Your task to perform on an android device: Empty the shopping cart on ebay. Search for "jbl flip 4" on ebay, select the first entry, add it to the cart, then select checkout. Image 0: 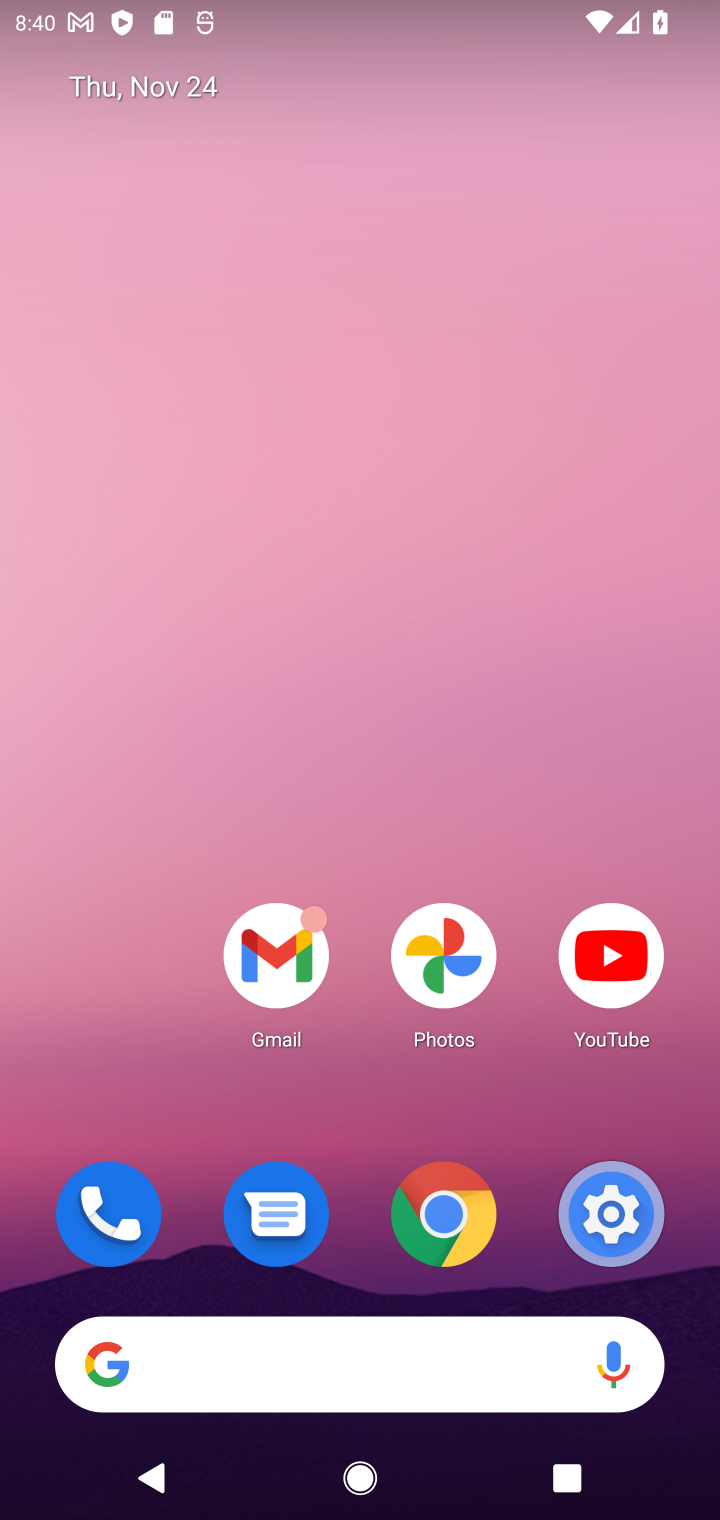
Step 0: click (299, 1340)
Your task to perform on an android device: Empty the shopping cart on ebay. Search for "jbl flip 4" on ebay, select the first entry, add it to the cart, then select checkout. Image 1: 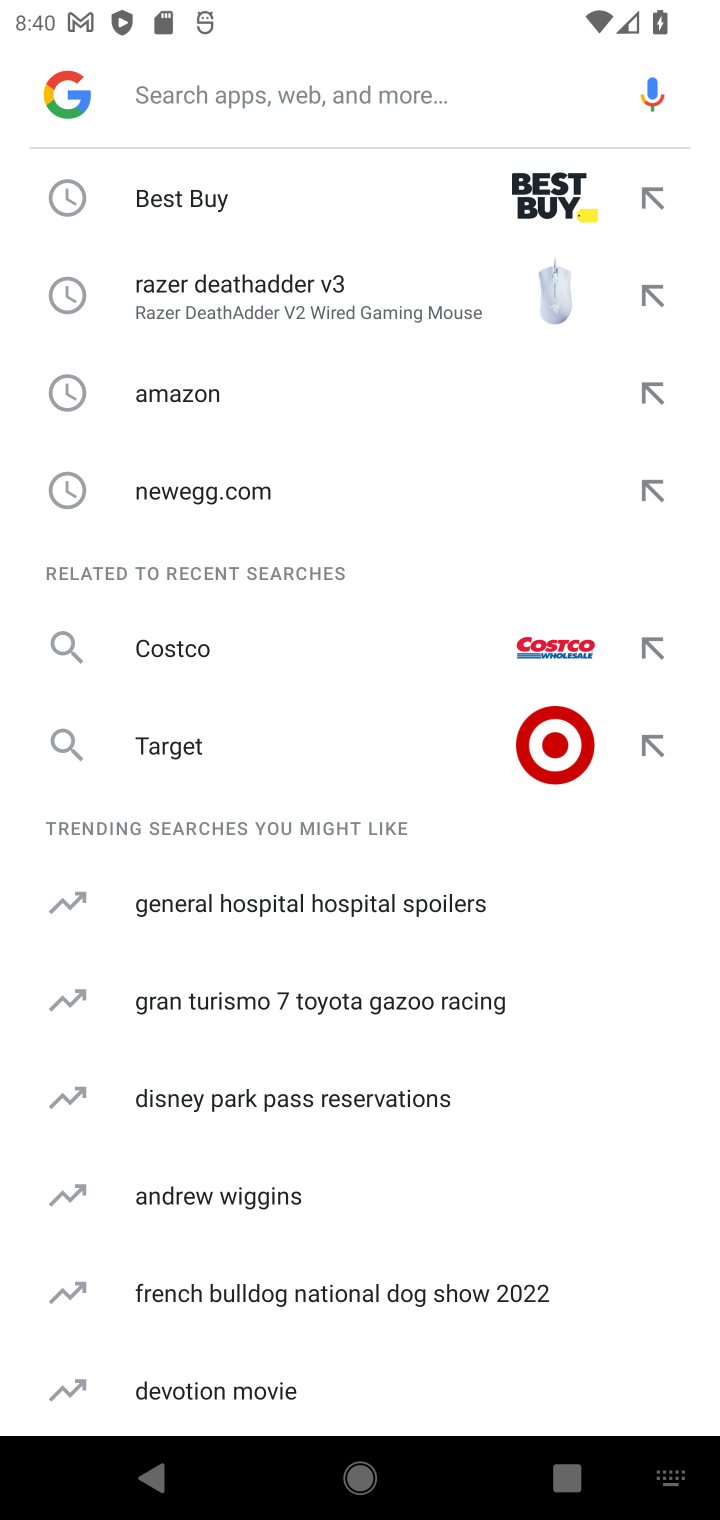
Step 1: type "ebay.com"
Your task to perform on an android device: Empty the shopping cart on ebay. Search for "jbl flip 4" on ebay, select the first entry, add it to the cart, then select checkout. Image 2: 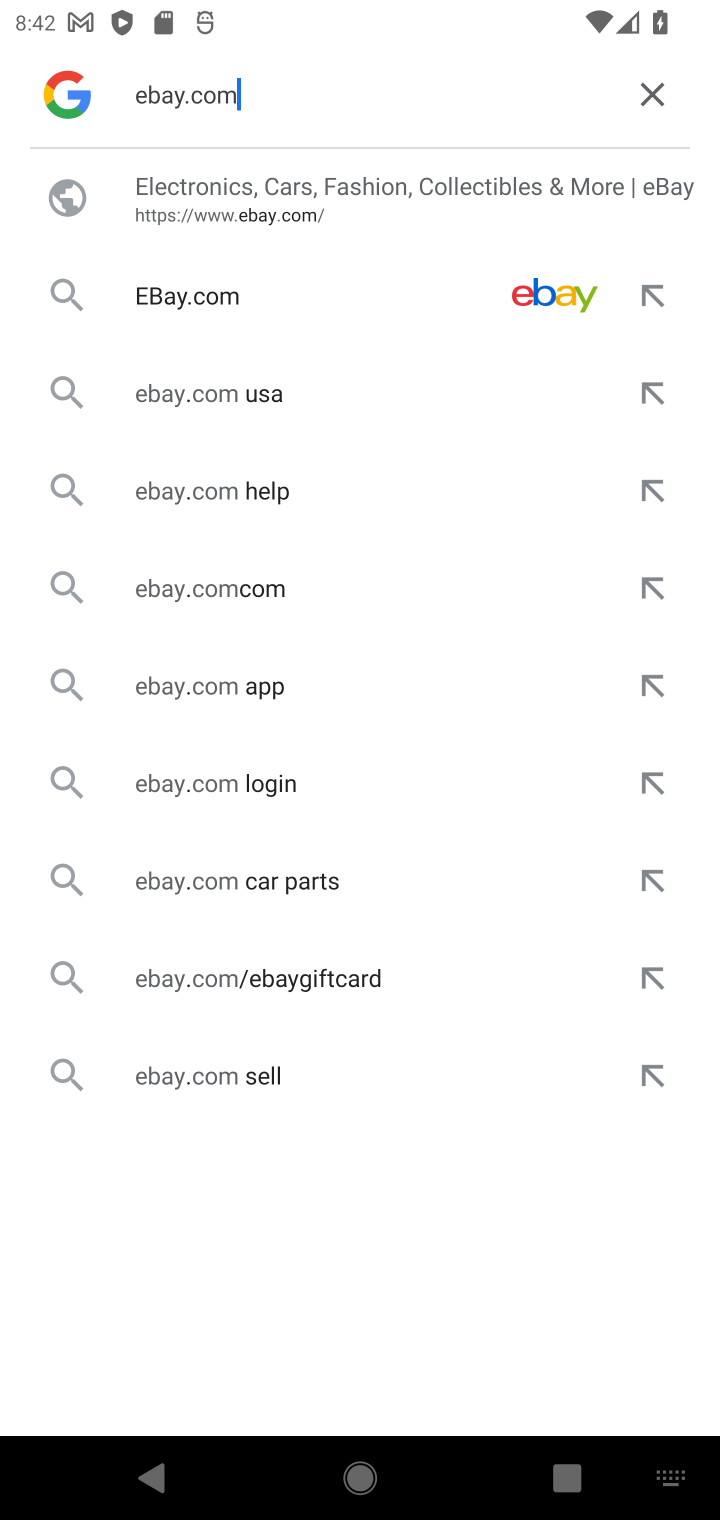
Step 2: click (230, 230)
Your task to perform on an android device: Empty the shopping cart on ebay. Search for "jbl flip 4" on ebay, select the first entry, add it to the cart, then select checkout. Image 3: 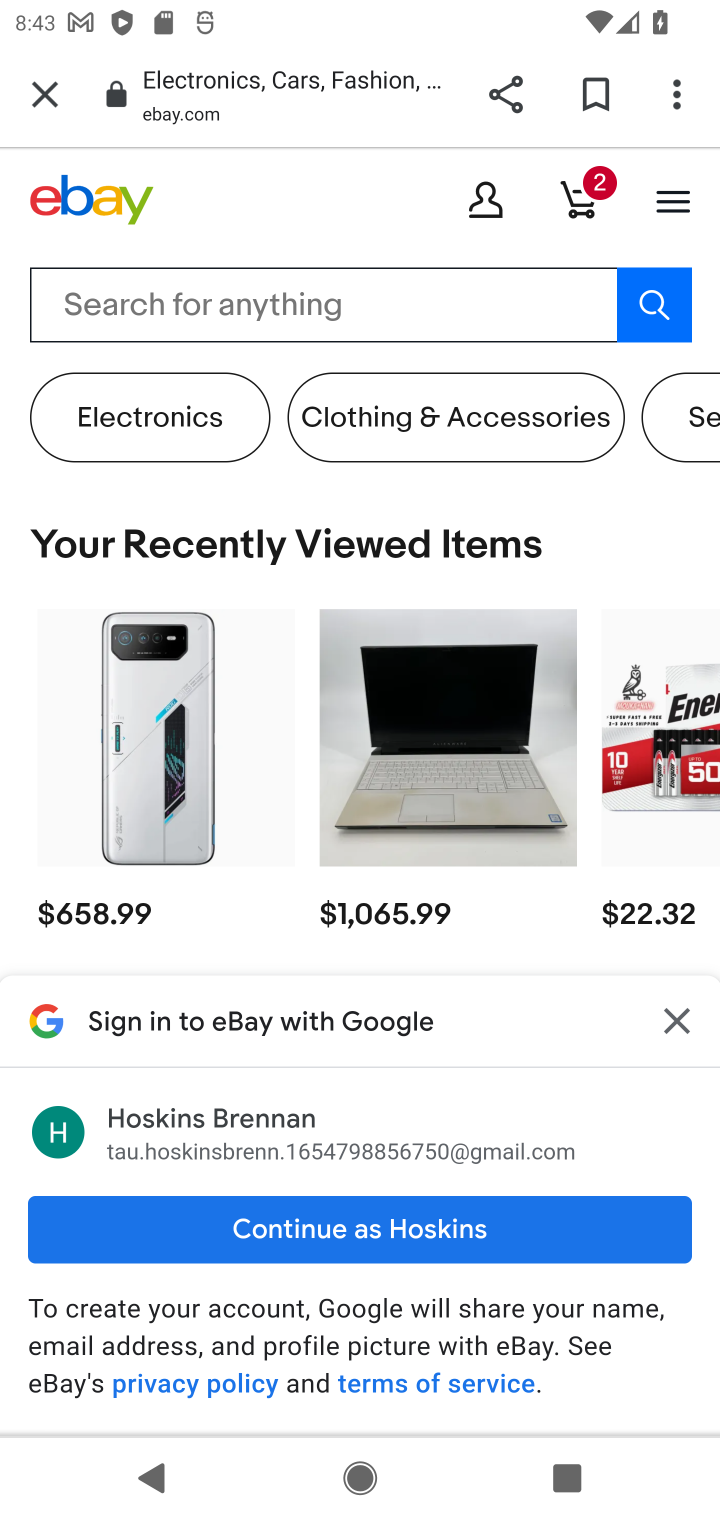
Step 3: click (139, 270)
Your task to perform on an android device: Empty the shopping cart on ebay. Search for "jbl flip 4" on ebay, select the first entry, add it to the cart, then select checkout. Image 4: 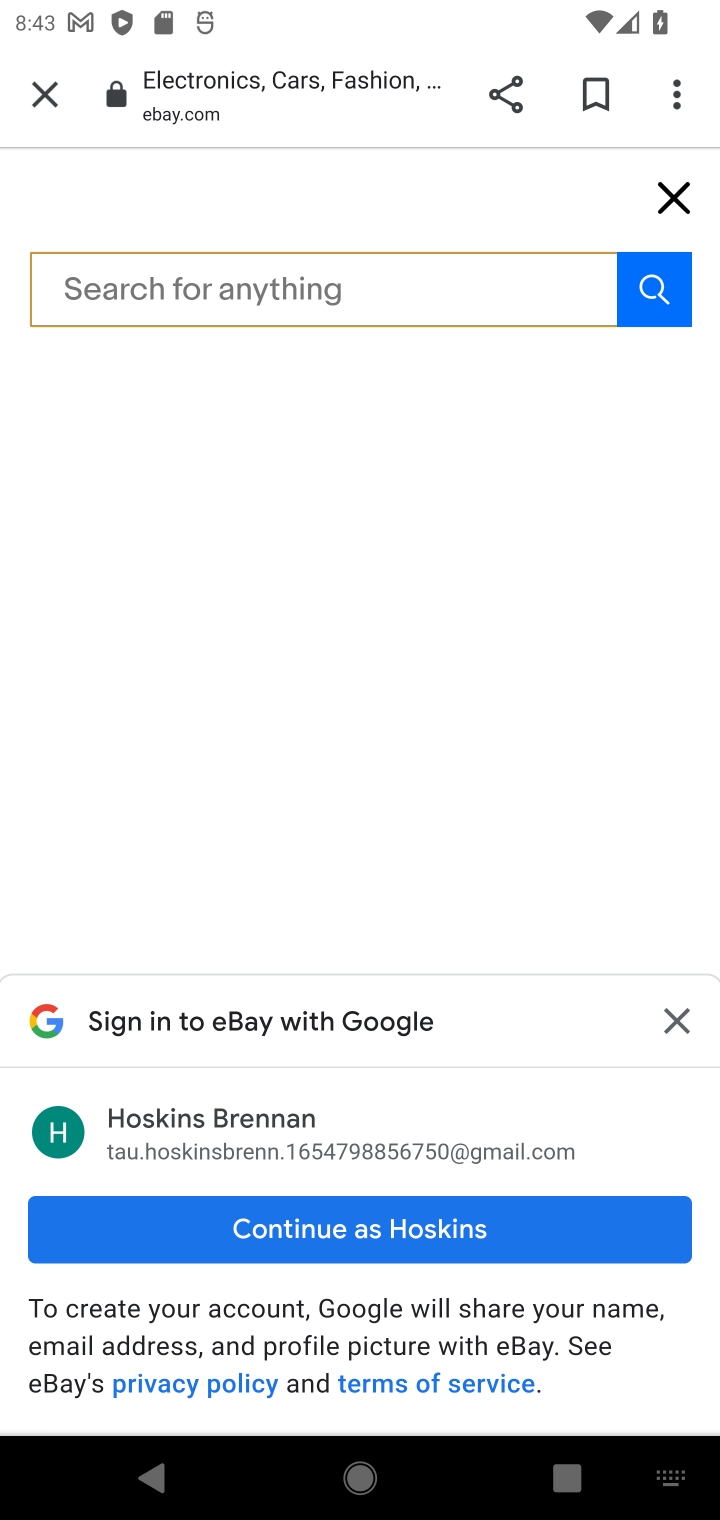
Step 4: task complete